Your task to perform on an android device: Search for "logitech g pro" on bestbuy, select the first entry, and add it to the cart. Image 0: 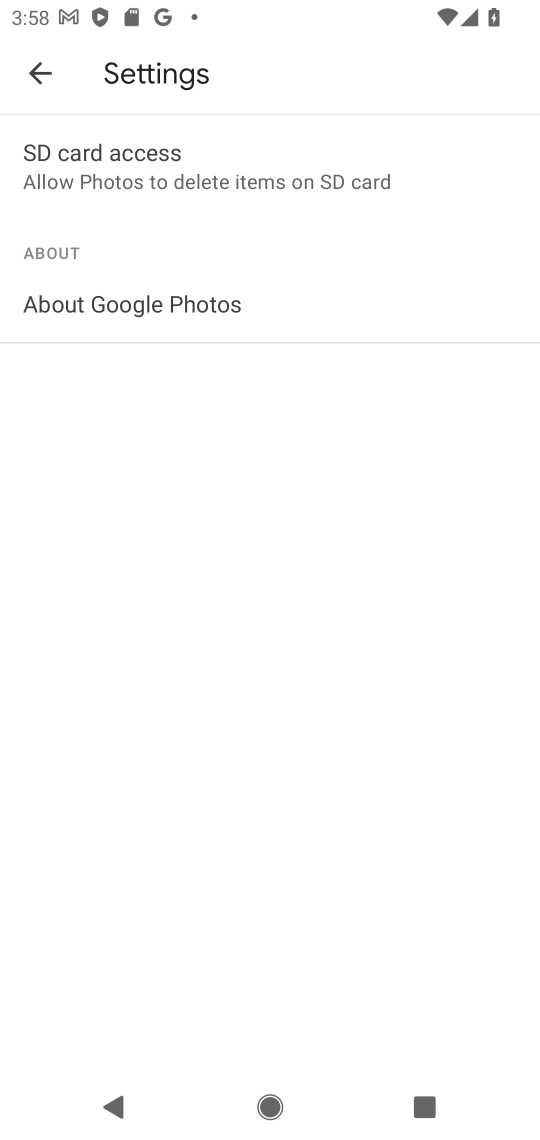
Step 0: press home button
Your task to perform on an android device: Search for "logitech g pro" on bestbuy, select the first entry, and add it to the cart. Image 1: 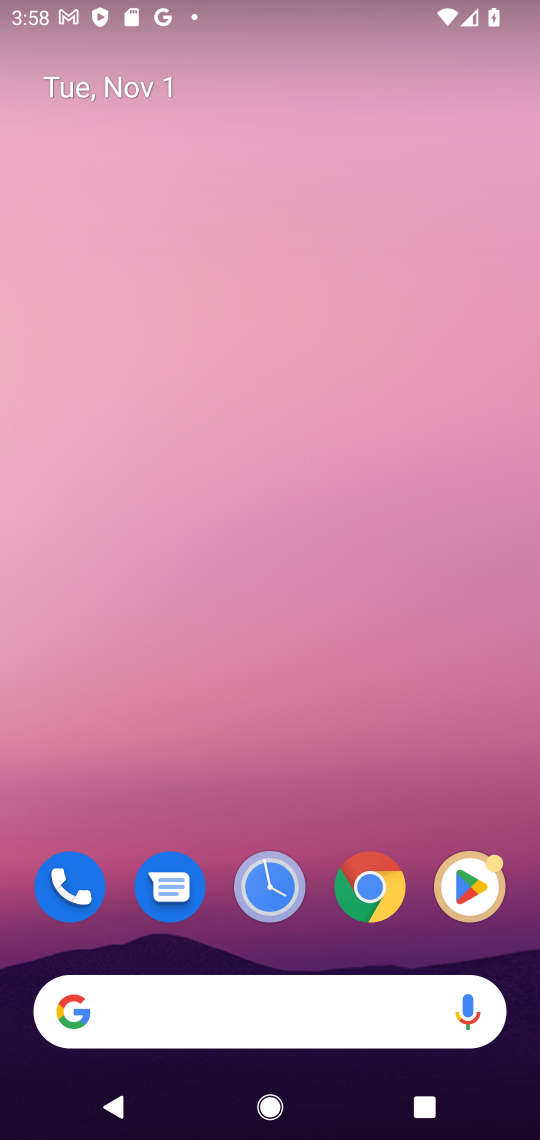
Step 1: drag from (316, 971) to (369, 192)
Your task to perform on an android device: Search for "logitech g pro" on bestbuy, select the first entry, and add it to the cart. Image 2: 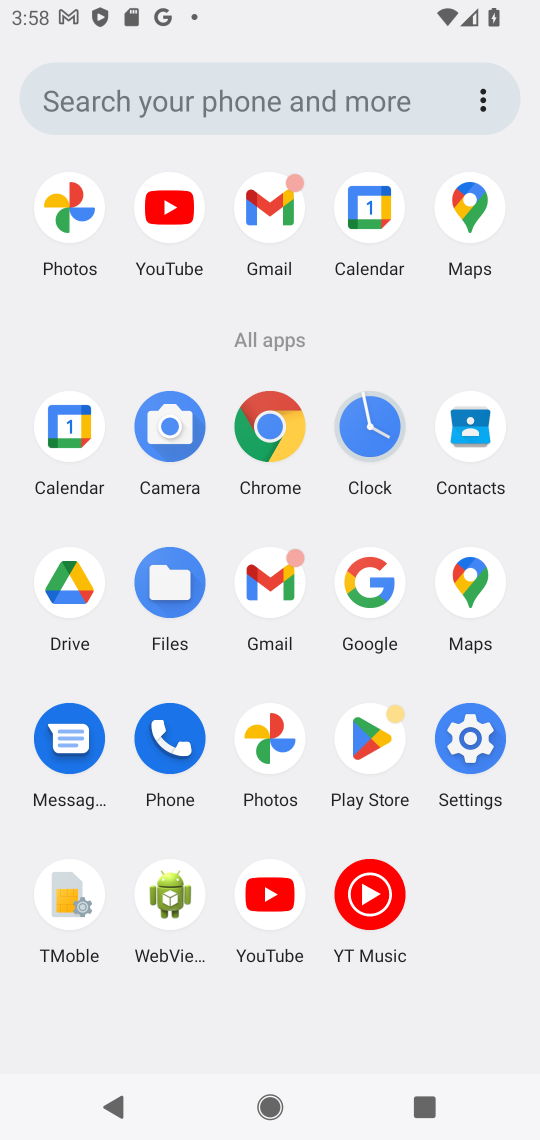
Step 2: click (278, 425)
Your task to perform on an android device: Search for "logitech g pro" on bestbuy, select the first entry, and add it to the cart. Image 3: 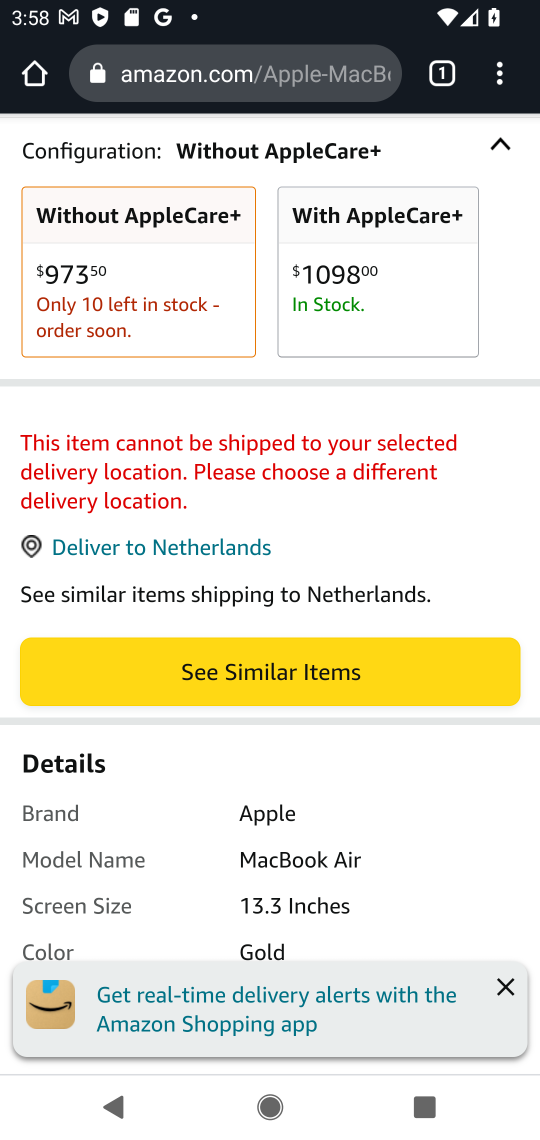
Step 3: click (284, 68)
Your task to perform on an android device: Search for "logitech g pro" on bestbuy, select the first entry, and add it to the cart. Image 4: 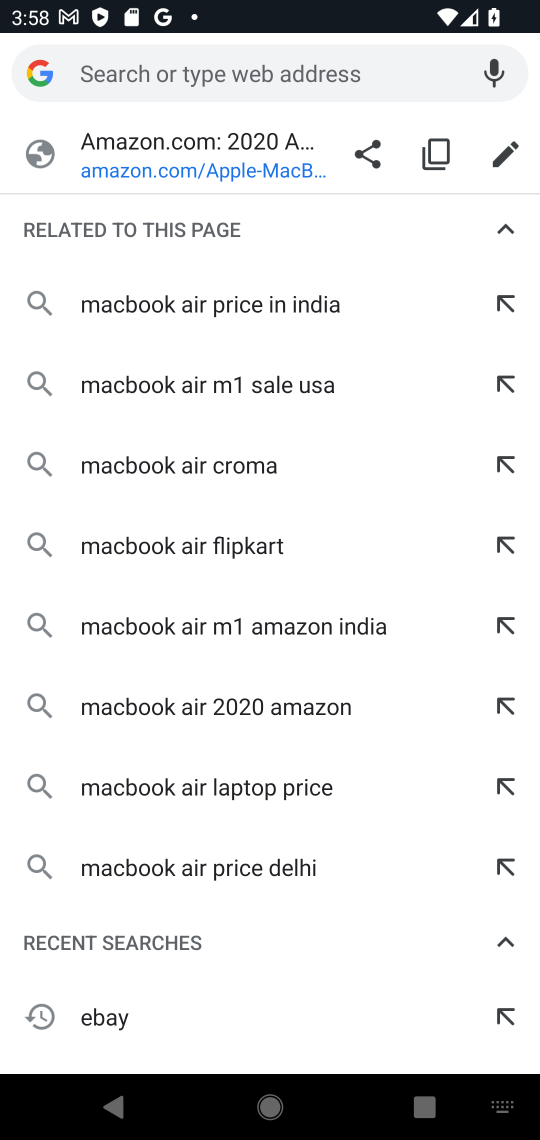
Step 4: type "bestbuy.com"
Your task to perform on an android device: Search for "logitech g pro" on bestbuy, select the first entry, and add it to the cart. Image 5: 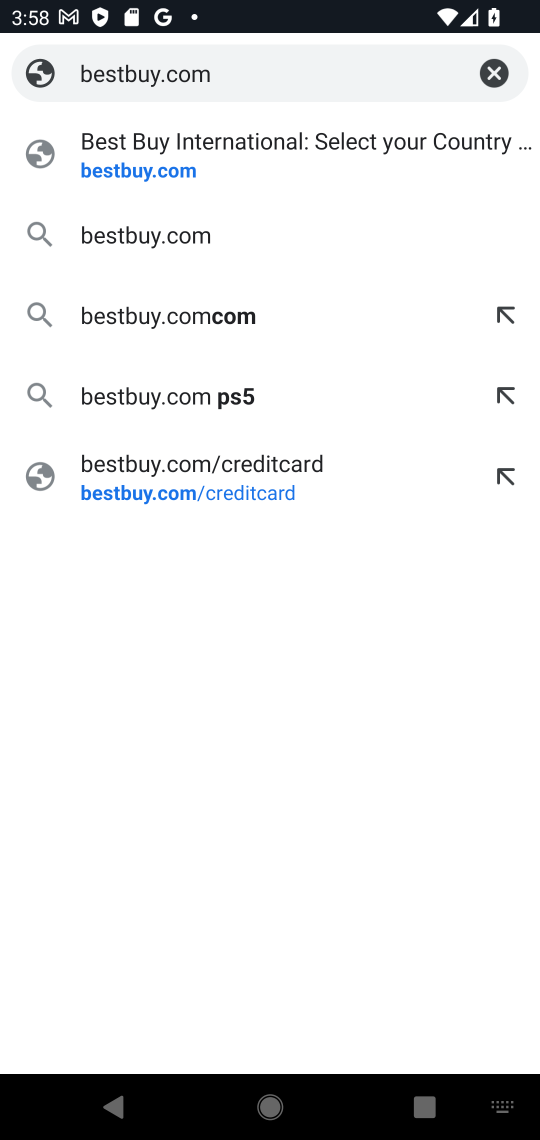
Step 5: press enter
Your task to perform on an android device: Search for "logitech g pro" on bestbuy, select the first entry, and add it to the cart. Image 6: 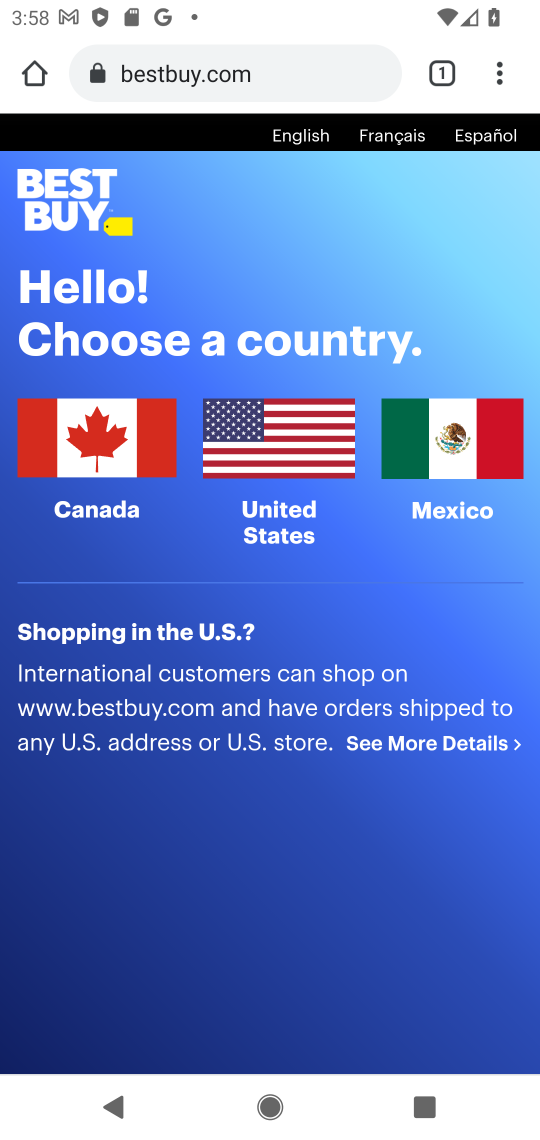
Step 6: click (70, 445)
Your task to perform on an android device: Search for "logitech g pro" on bestbuy, select the first entry, and add it to the cart. Image 7: 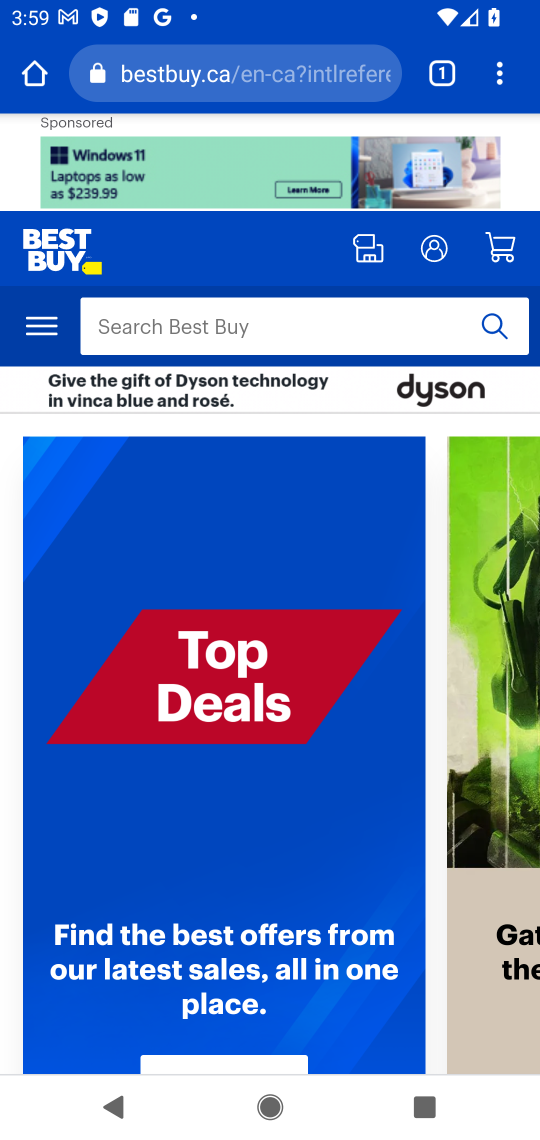
Step 7: click (302, 323)
Your task to perform on an android device: Search for "logitech g pro" on bestbuy, select the first entry, and add it to the cart. Image 8: 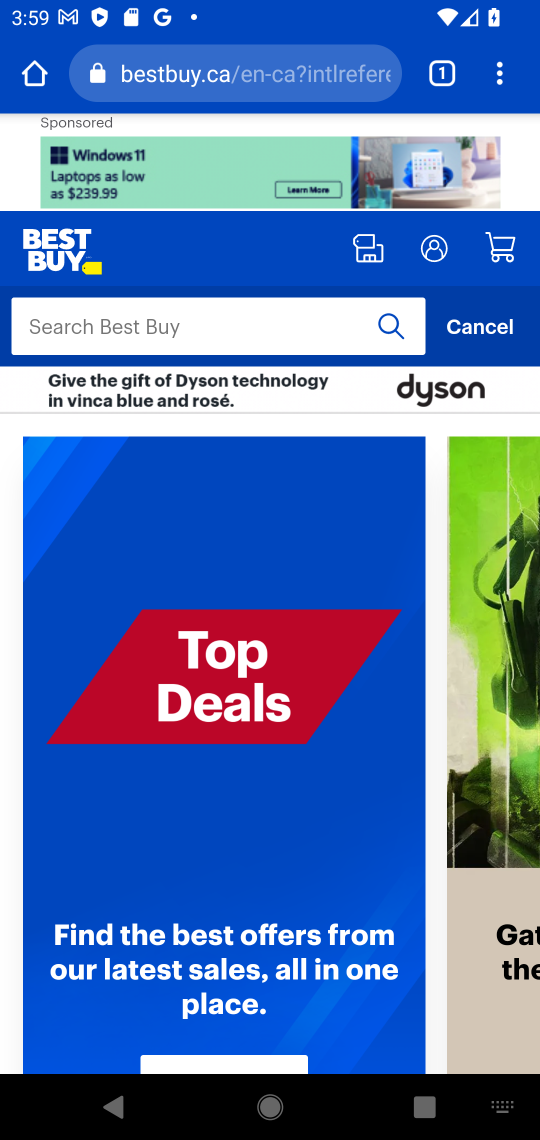
Step 8: type "logitech g pro"
Your task to perform on an android device: Search for "logitech g pro" on bestbuy, select the first entry, and add it to the cart. Image 9: 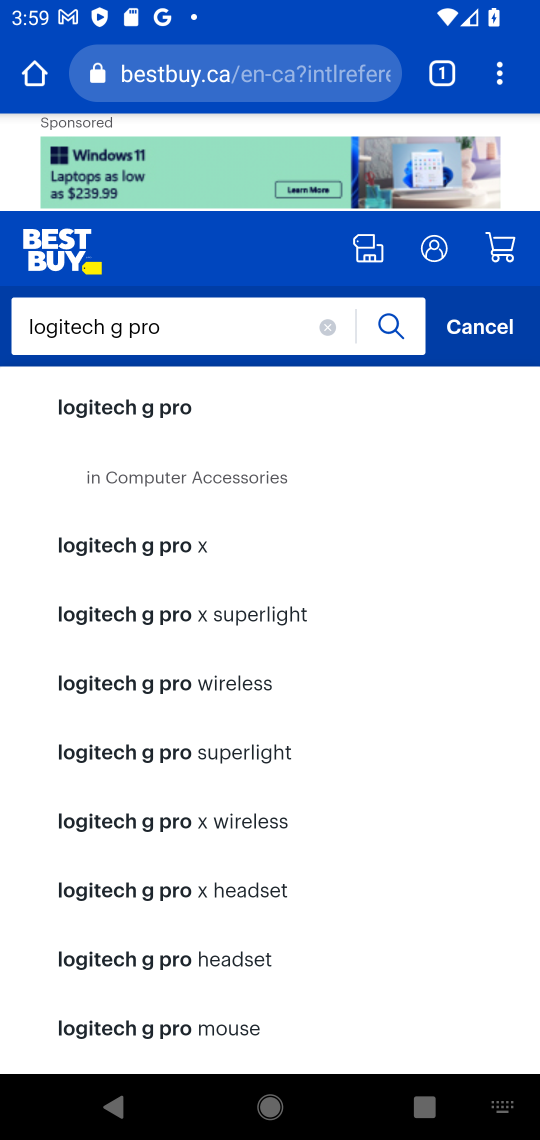
Step 9: press enter
Your task to perform on an android device: Search for "logitech g pro" on bestbuy, select the first entry, and add it to the cart. Image 10: 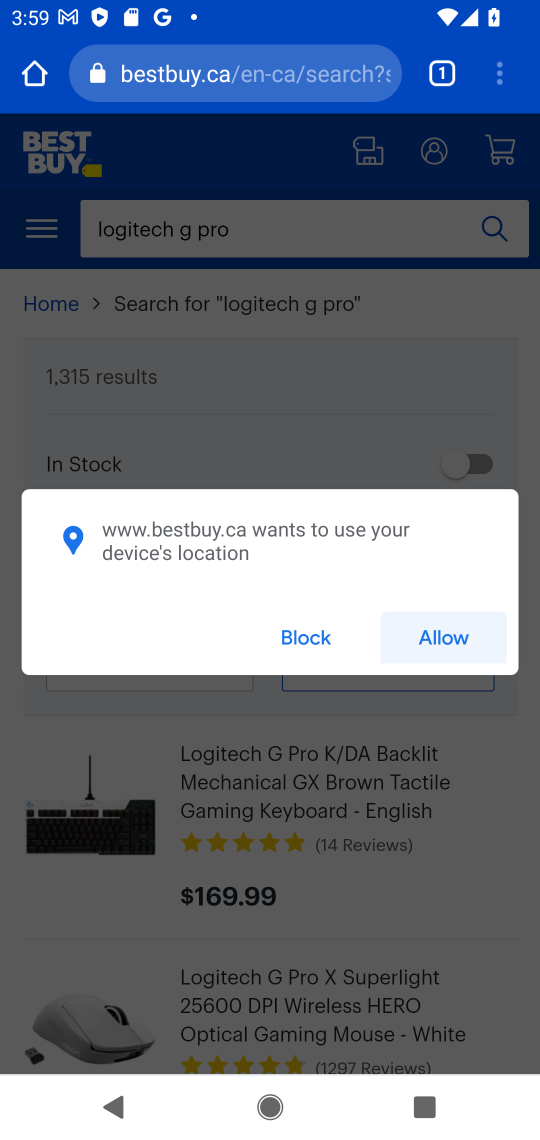
Step 10: click (313, 629)
Your task to perform on an android device: Search for "logitech g pro" on bestbuy, select the first entry, and add it to the cart. Image 11: 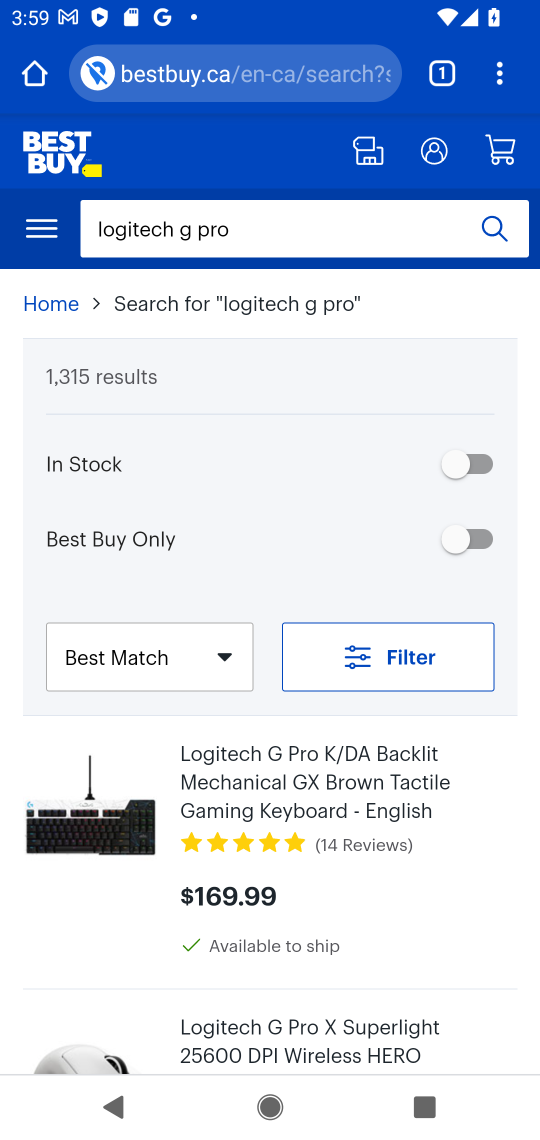
Step 11: drag from (322, 939) to (333, 763)
Your task to perform on an android device: Search for "logitech g pro" on bestbuy, select the first entry, and add it to the cart. Image 12: 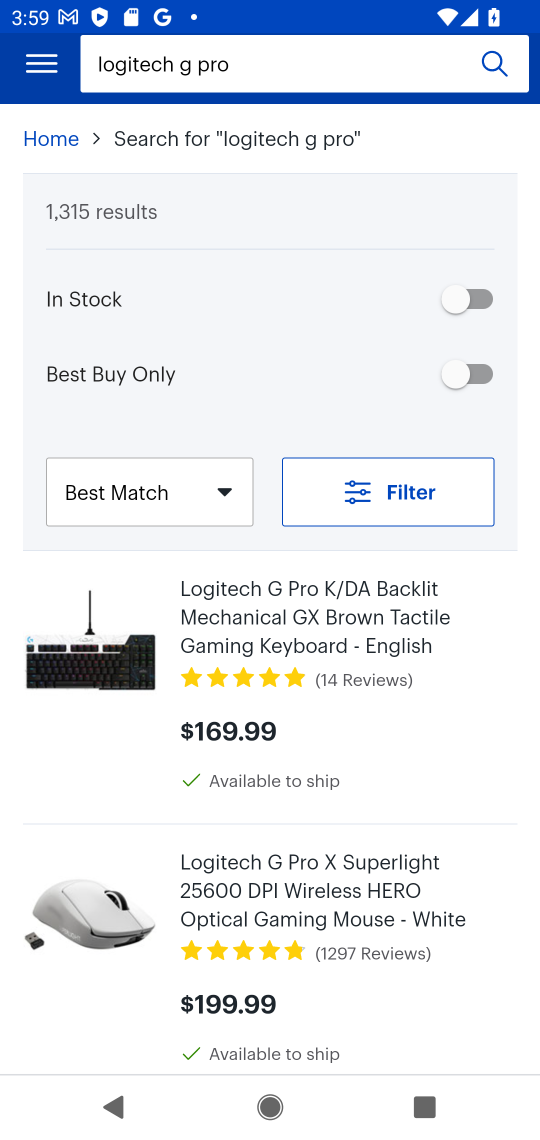
Step 12: click (351, 643)
Your task to perform on an android device: Search for "logitech g pro" on bestbuy, select the first entry, and add it to the cart. Image 13: 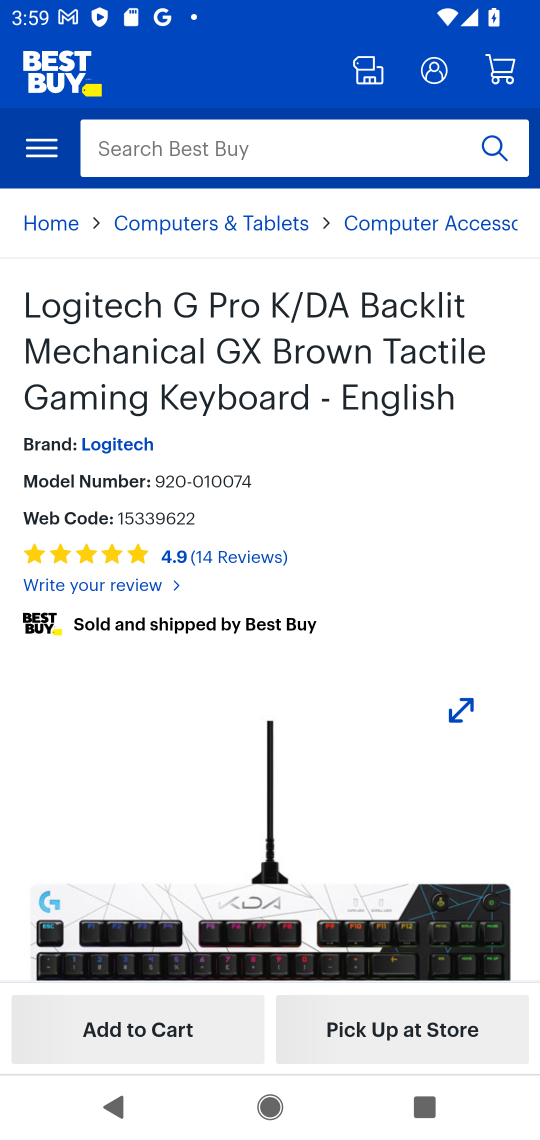
Step 13: drag from (286, 811) to (321, 215)
Your task to perform on an android device: Search for "logitech g pro" on bestbuy, select the first entry, and add it to the cart. Image 14: 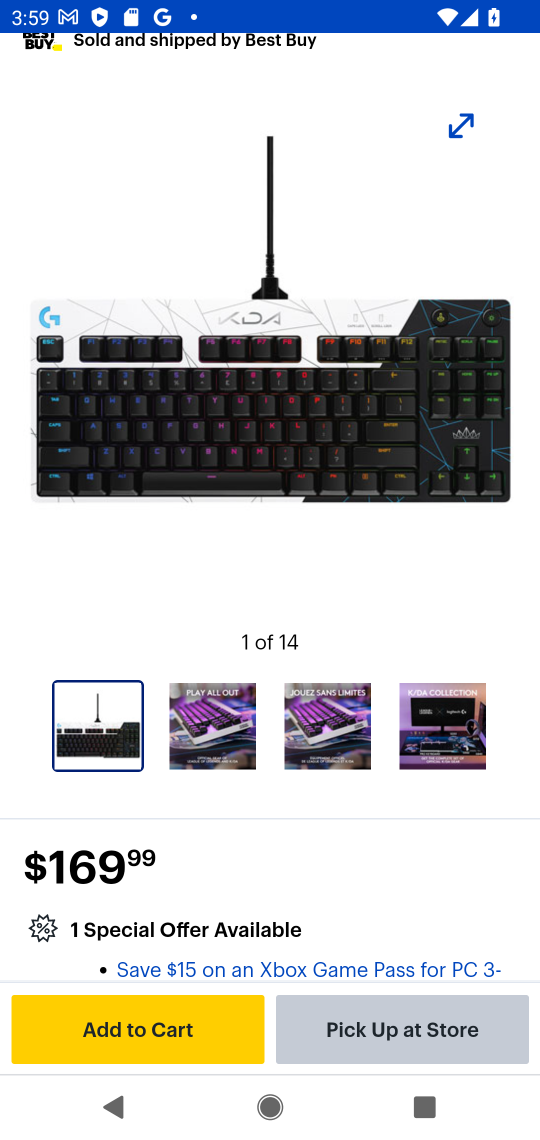
Step 14: click (174, 1029)
Your task to perform on an android device: Search for "logitech g pro" on bestbuy, select the first entry, and add it to the cart. Image 15: 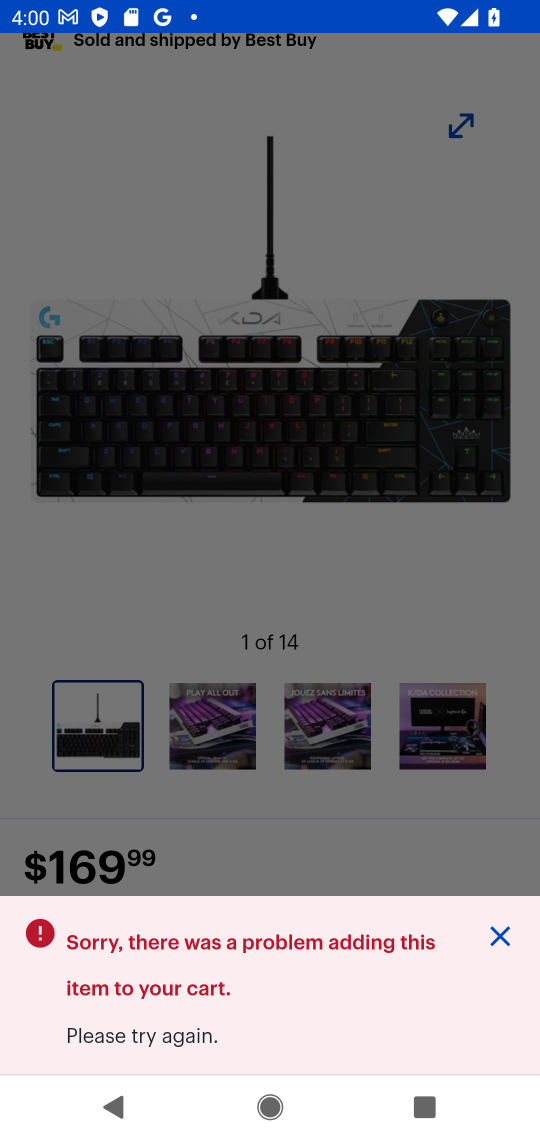
Step 15: task complete